Your task to perform on an android device: Show the shopping cart on amazon.com. Search for "jbl charge 4" on amazon.com, select the first entry, and add it to the cart. Image 0: 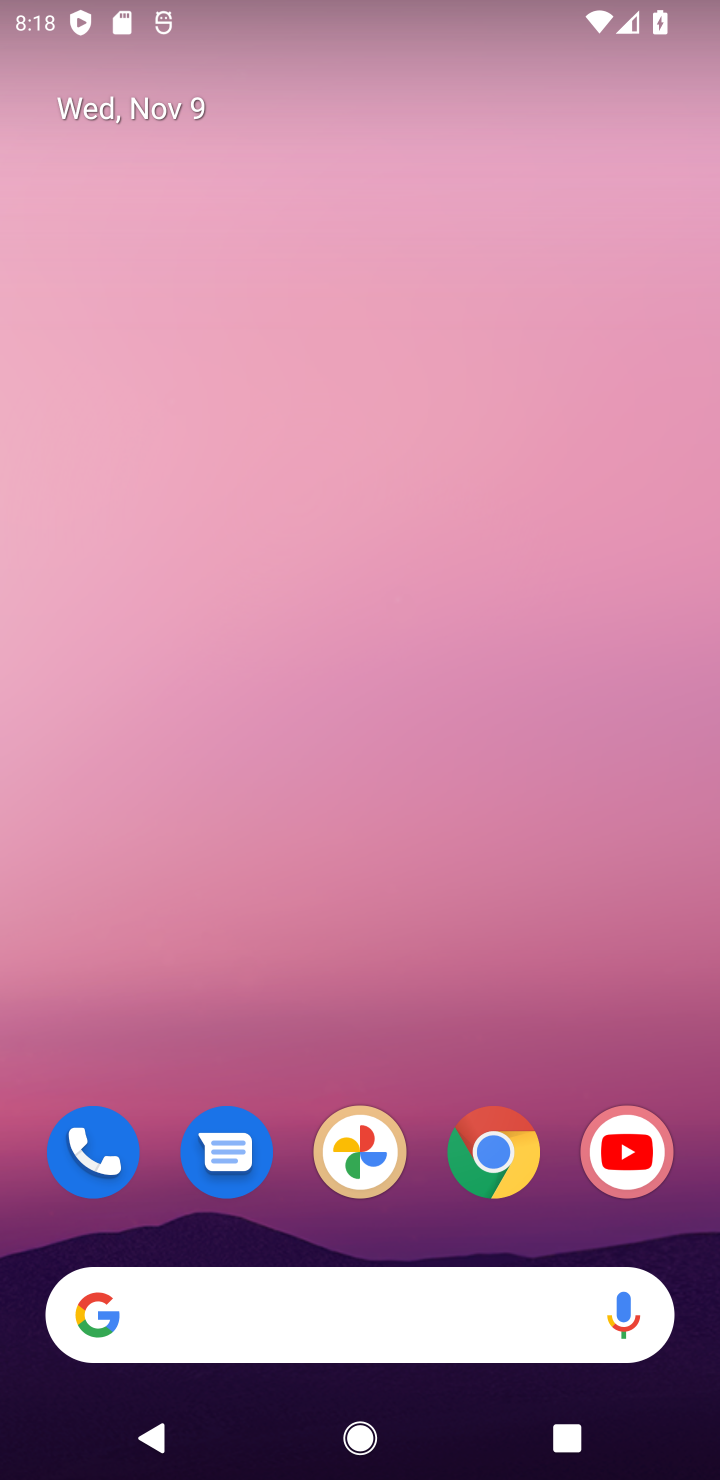
Step 0: click (500, 1142)
Your task to perform on an android device: Show the shopping cart on amazon.com. Search for "jbl charge 4" on amazon.com, select the first entry, and add it to the cart. Image 1: 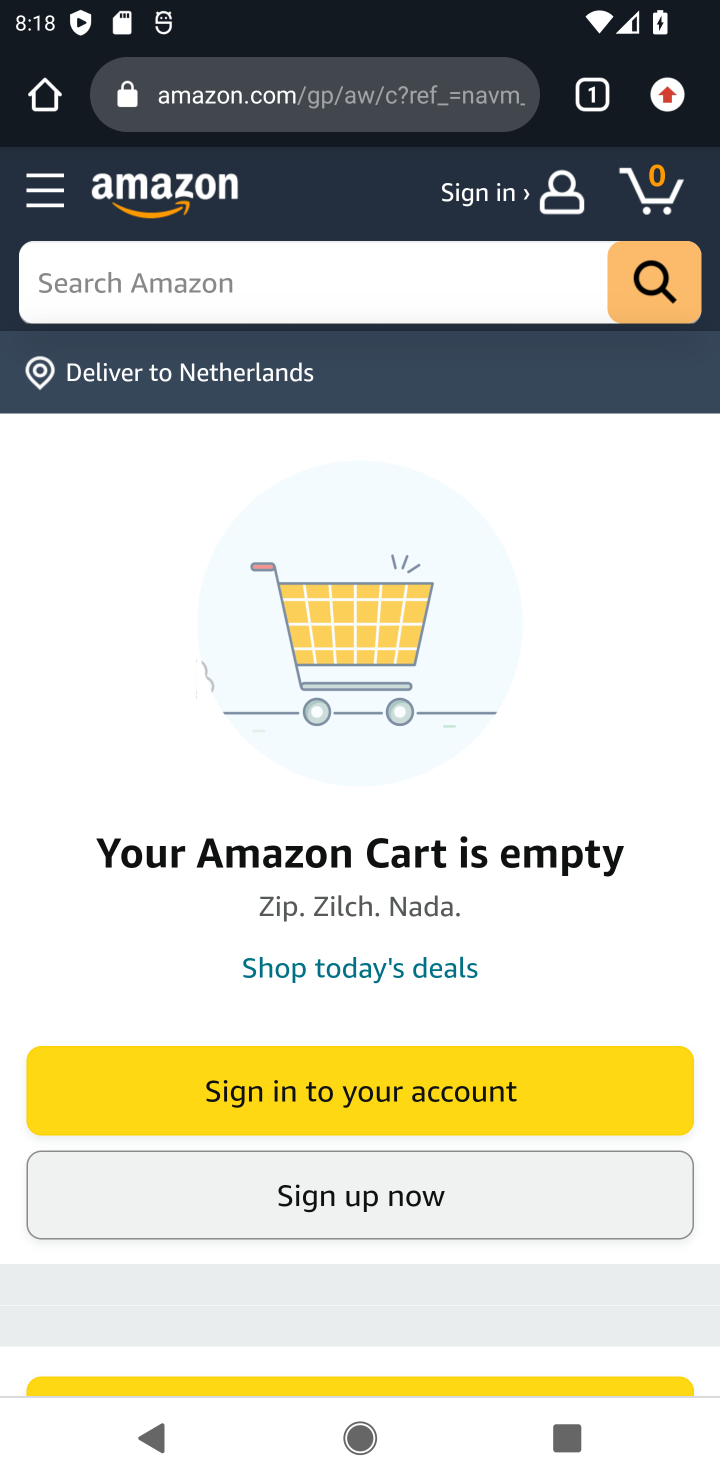
Step 1: click (297, 285)
Your task to perform on an android device: Show the shopping cart on amazon.com. Search for "jbl charge 4" on amazon.com, select the first entry, and add it to the cart. Image 2: 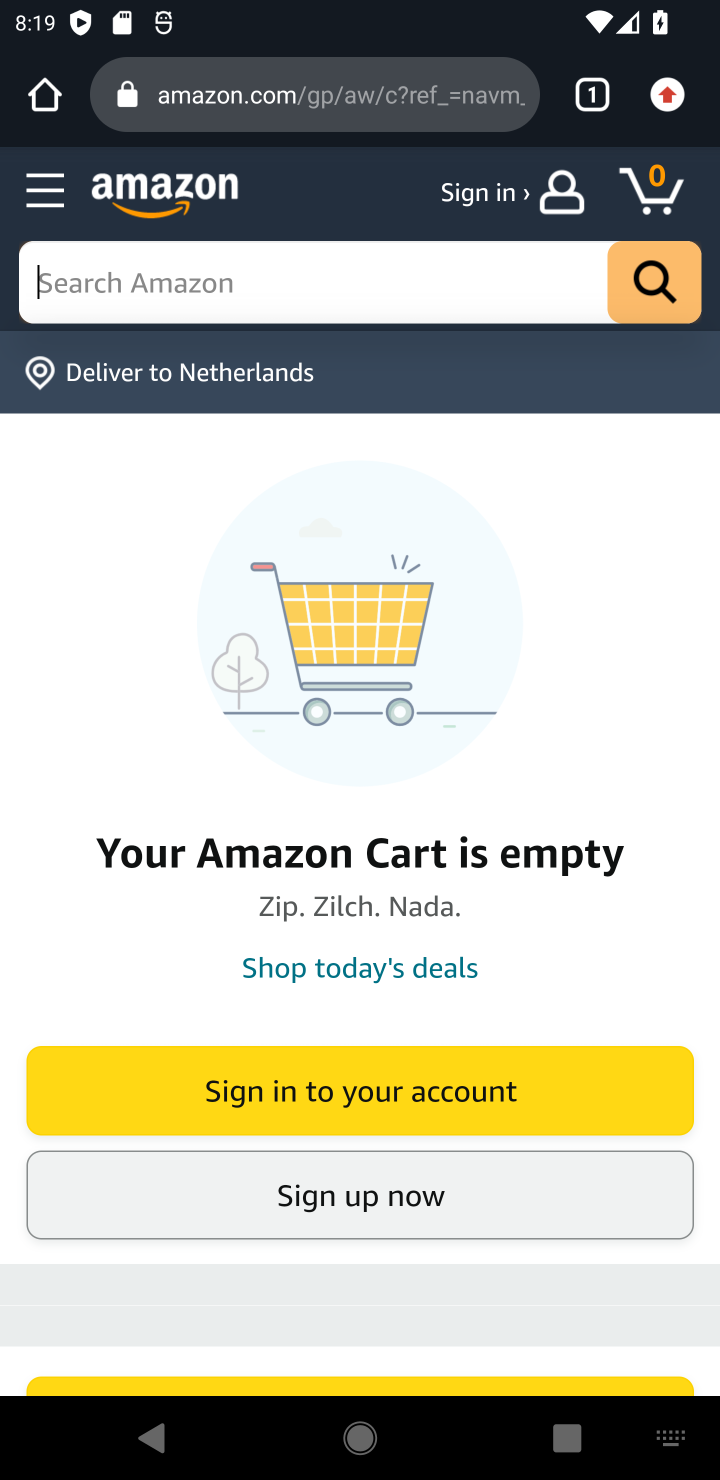
Step 2: type "jbl charge 4"
Your task to perform on an android device: Show the shopping cart on amazon.com. Search for "jbl charge 4" on amazon.com, select the first entry, and add it to the cart. Image 3: 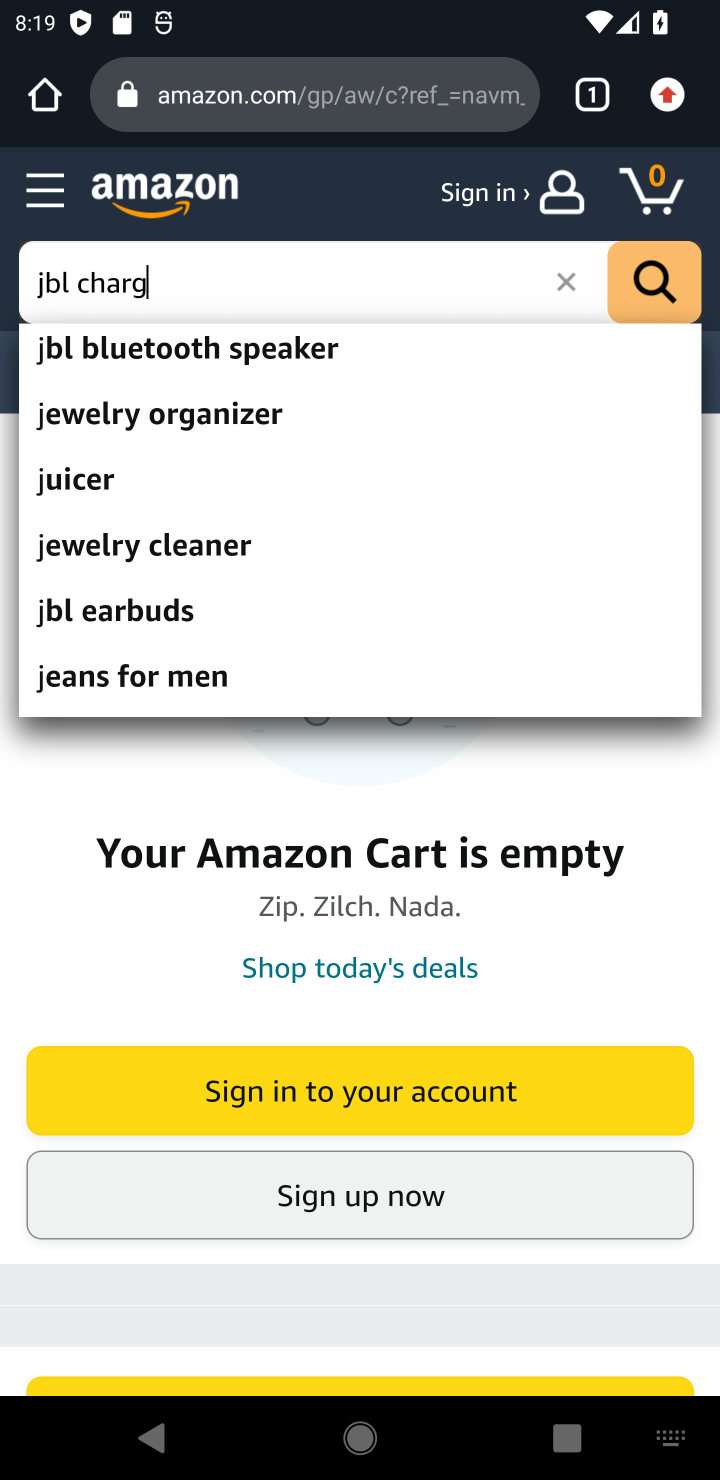
Step 3: press enter
Your task to perform on an android device: Show the shopping cart on amazon.com. Search for "jbl charge 4" on amazon.com, select the first entry, and add it to the cart. Image 4: 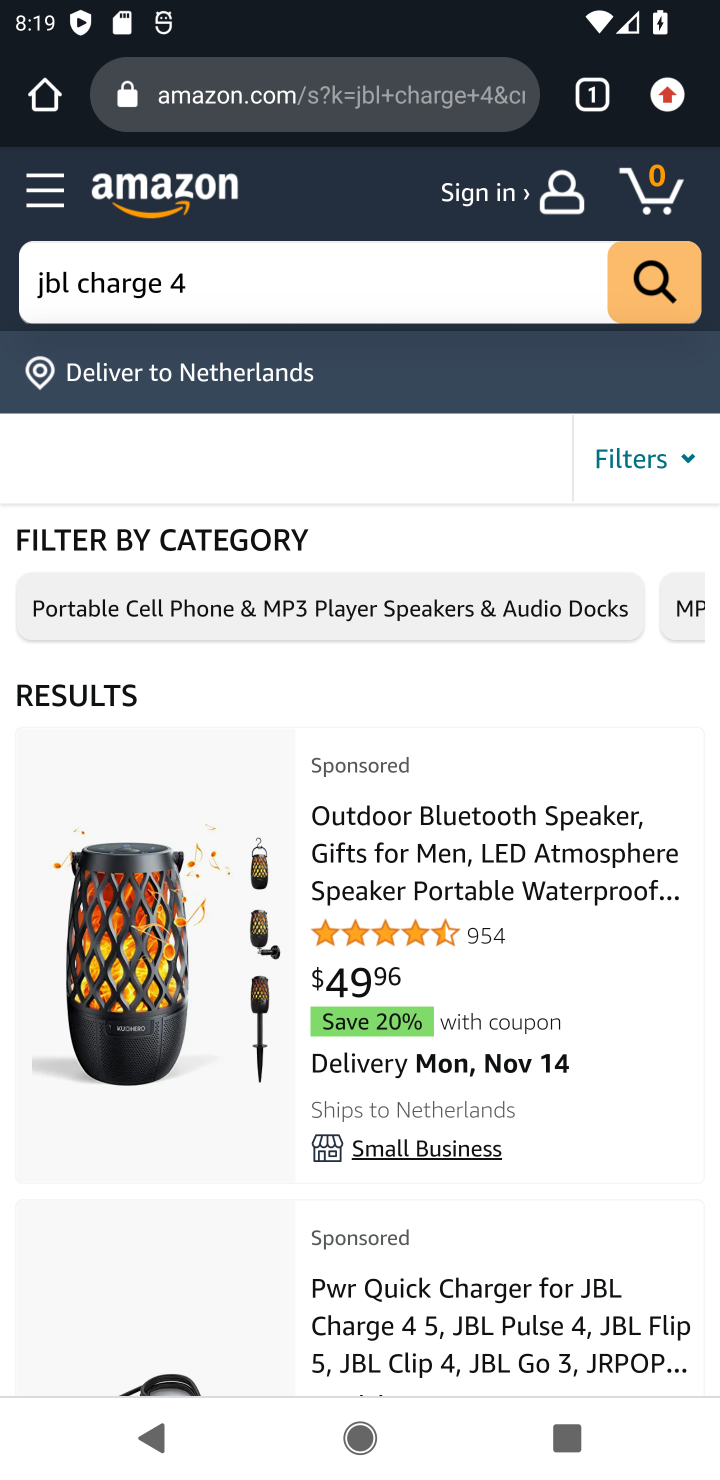
Step 4: click (428, 903)
Your task to perform on an android device: Show the shopping cart on amazon.com. Search for "jbl charge 4" on amazon.com, select the first entry, and add it to the cart. Image 5: 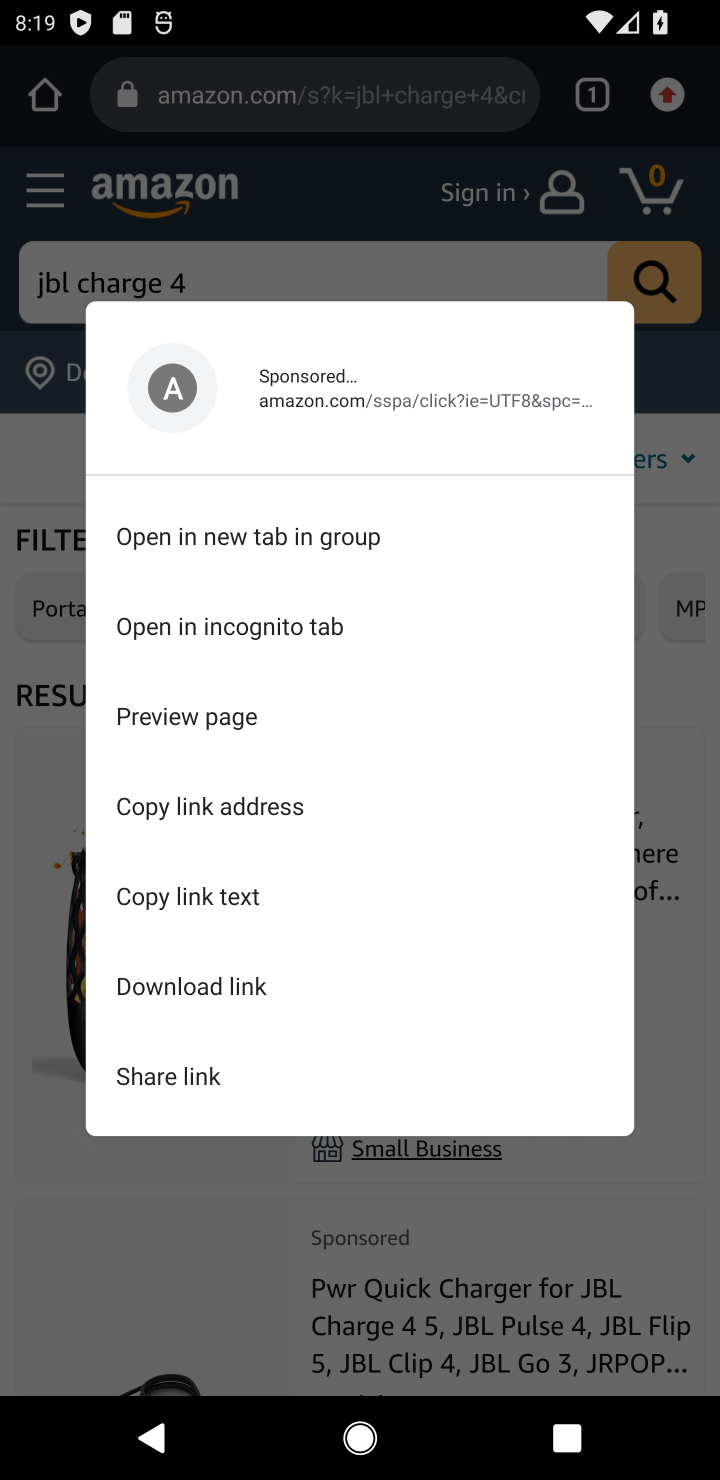
Step 5: click (669, 878)
Your task to perform on an android device: Show the shopping cart on amazon.com. Search for "jbl charge 4" on amazon.com, select the first entry, and add it to the cart. Image 6: 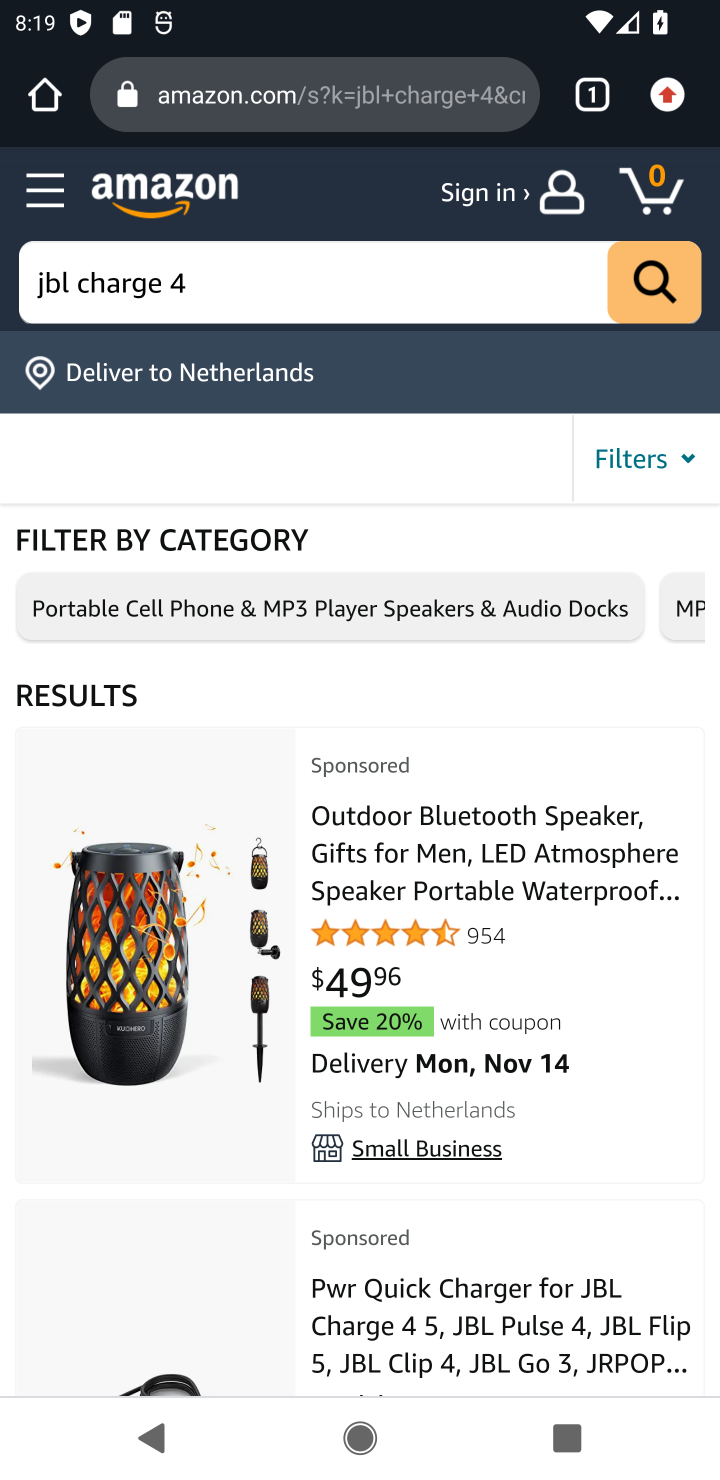
Step 6: click (453, 861)
Your task to perform on an android device: Show the shopping cart on amazon.com. Search for "jbl charge 4" on amazon.com, select the first entry, and add it to the cart. Image 7: 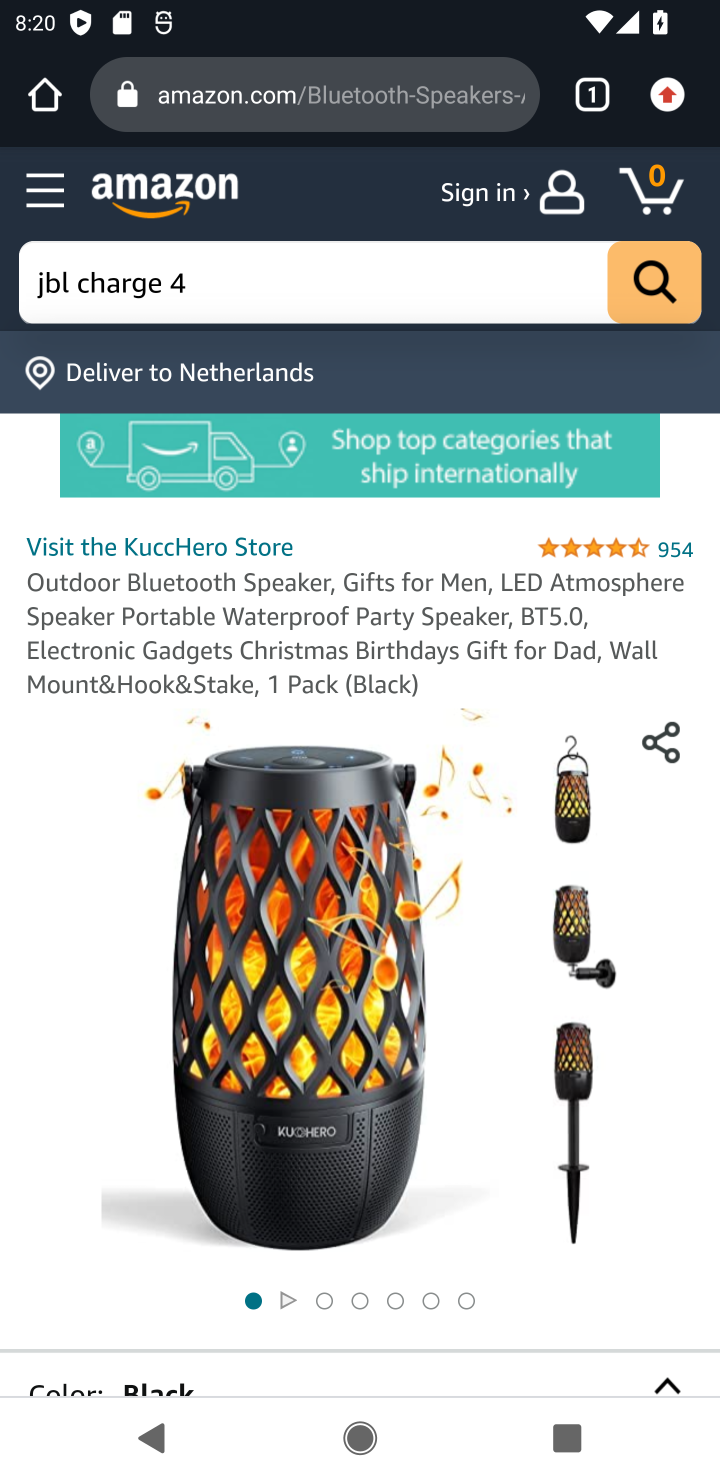
Step 7: task complete